Your task to perform on an android device: change text size in settings app Image 0: 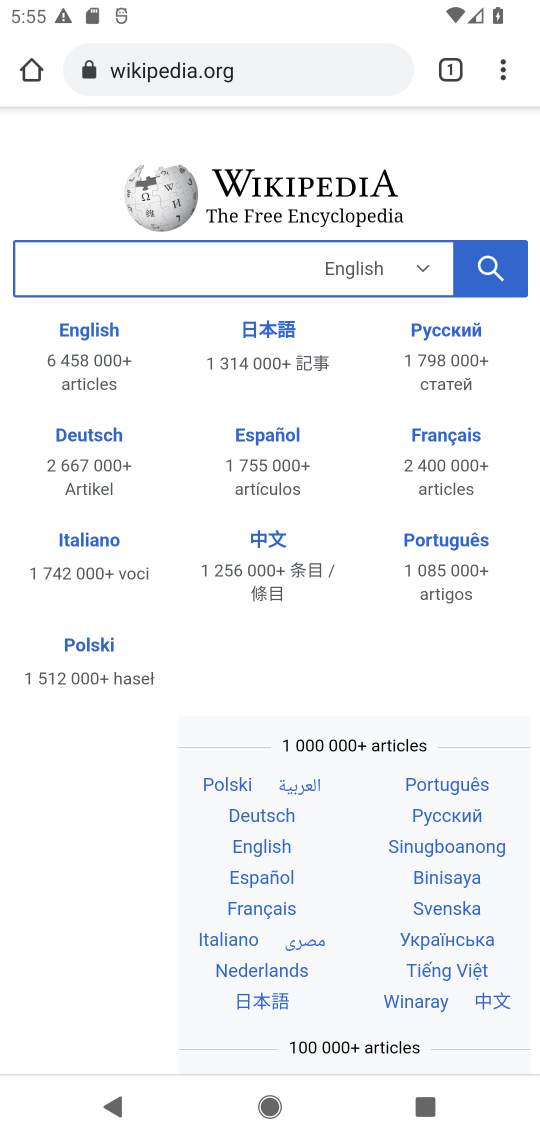
Step 0: press home button
Your task to perform on an android device: change text size in settings app Image 1: 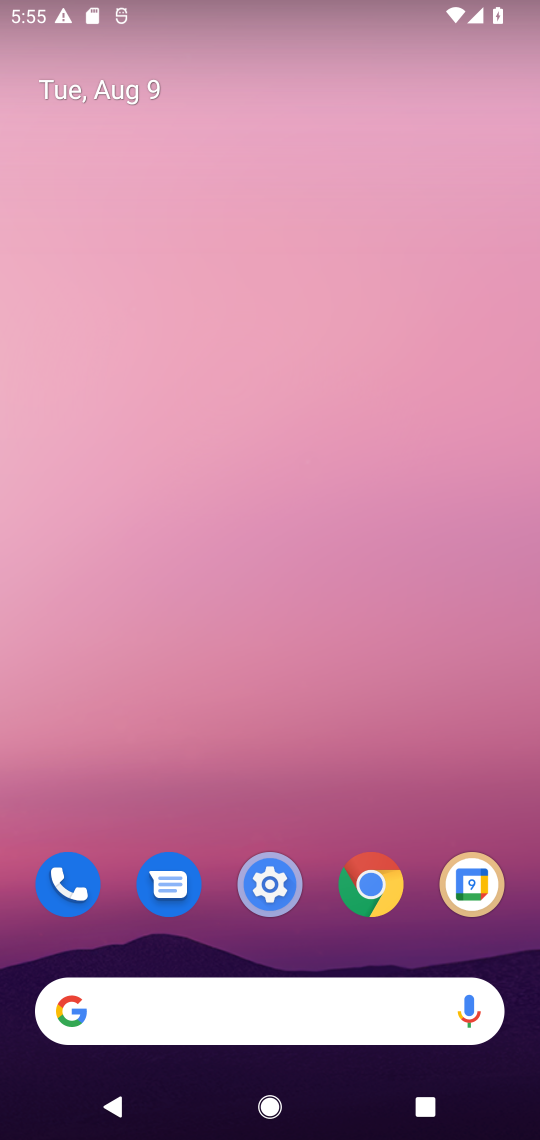
Step 1: click (273, 885)
Your task to perform on an android device: change text size in settings app Image 2: 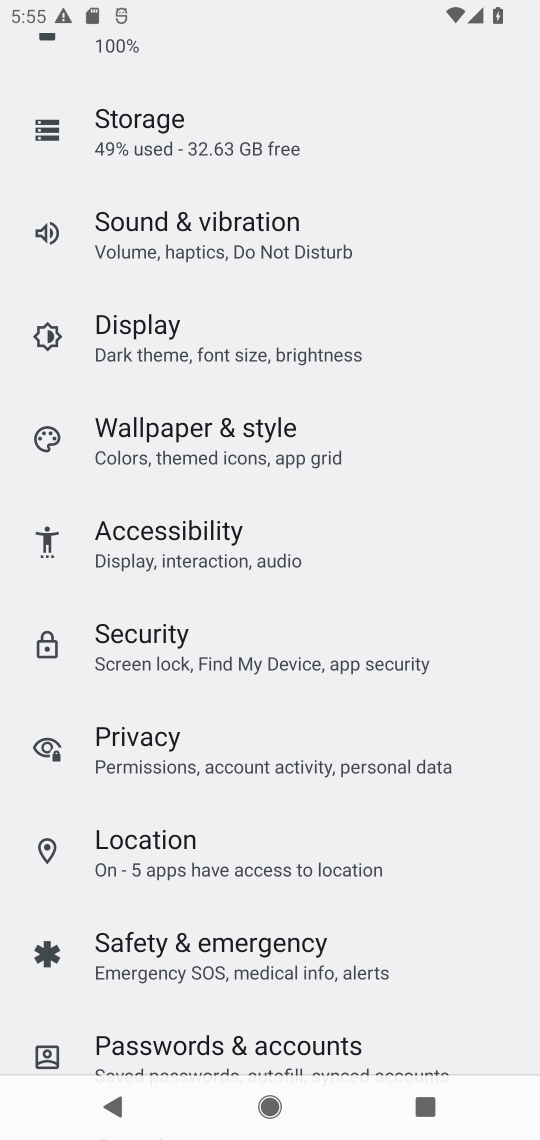
Step 2: drag from (228, 911) to (378, 726)
Your task to perform on an android device: change text size in settings app Image 3: 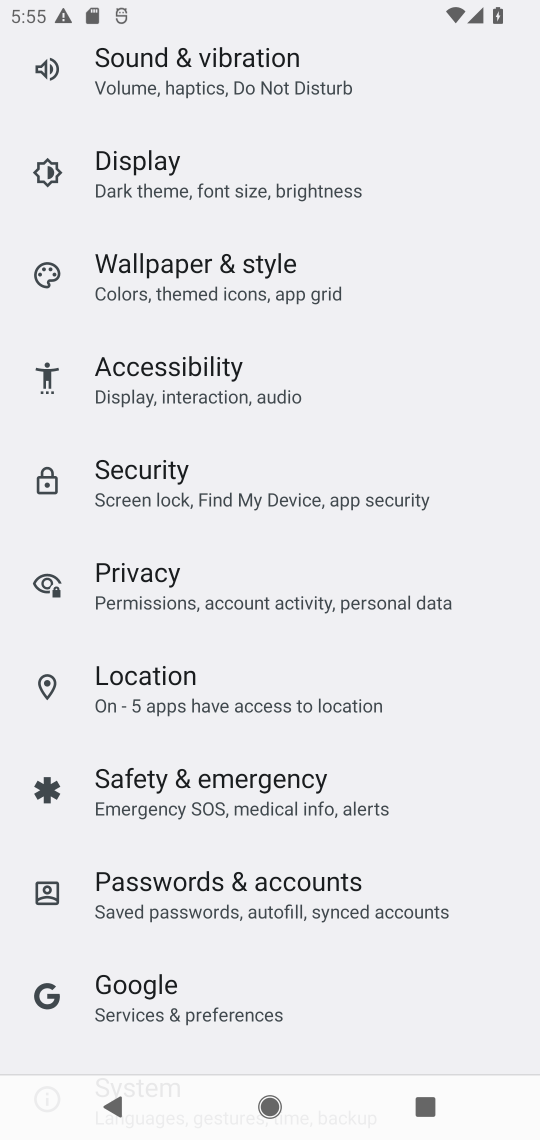
Step 3: drag from (225, 962) to (402, 722)
Your task to perform on an android device: change text size in settings app Image 4: 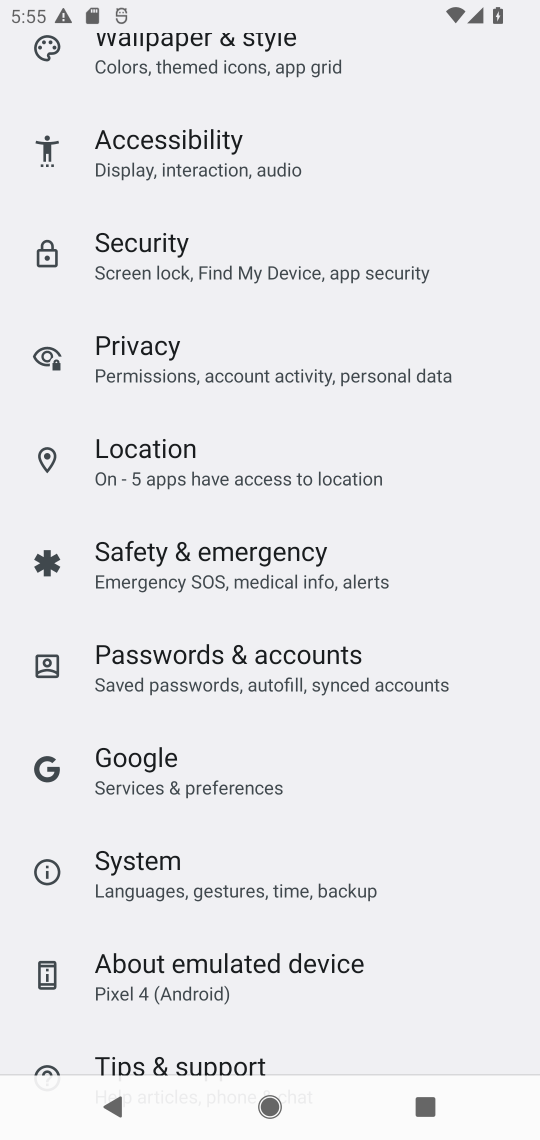
Step 4: click (234, 153)
Your task to perform on an android device: change text size in settings app Image 5: 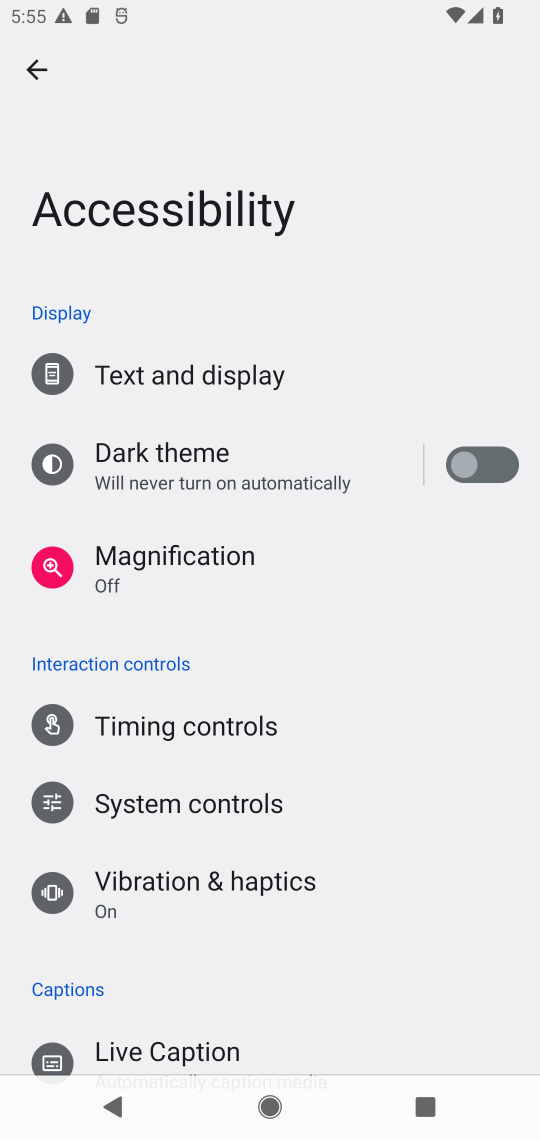
Step 5: click (222, 373)
Your task to perform on an android device: change text size in settings app Image 6: 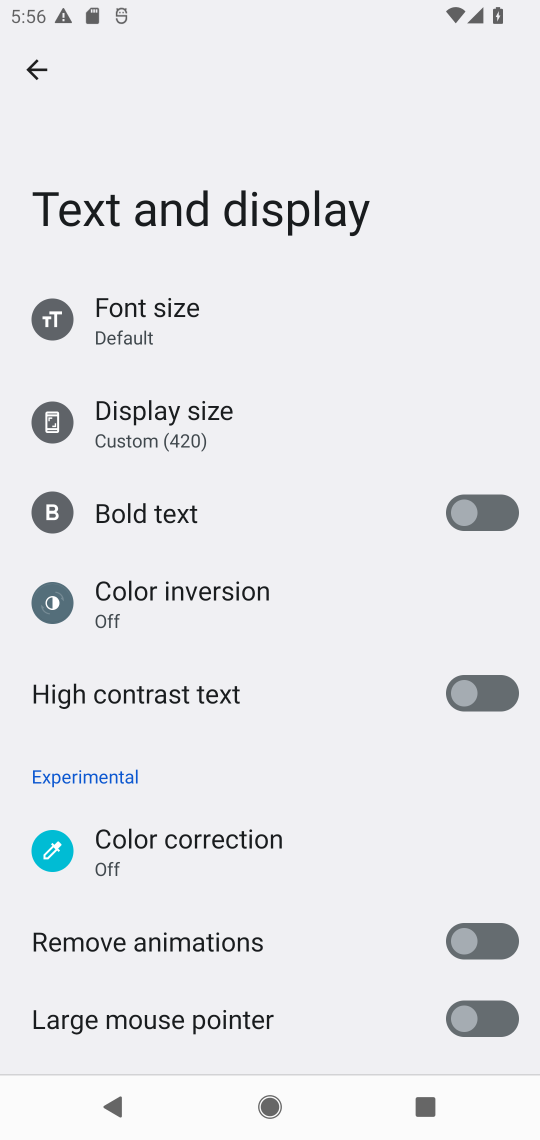
Step 6: click (159, 316)
Your task to perform on an android device: change text size in settings app Image 7: 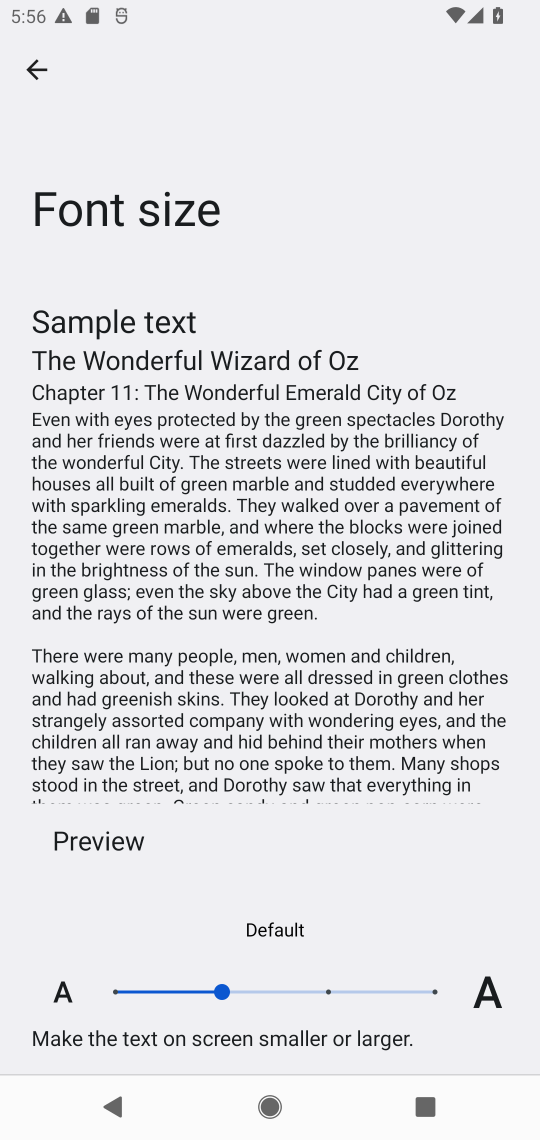
Step 7: click (329, 991)
Your task to perform on an android device: change text size in settings app Image 8: 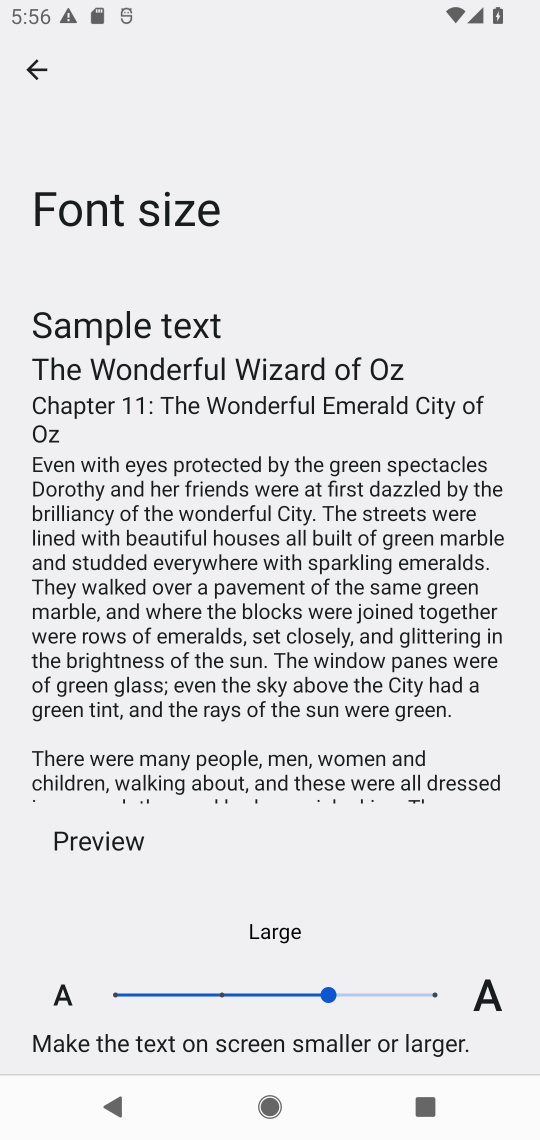
Step 8: click (429, 988)
Your task to perform on an android device: change text size in settings app Image 9: 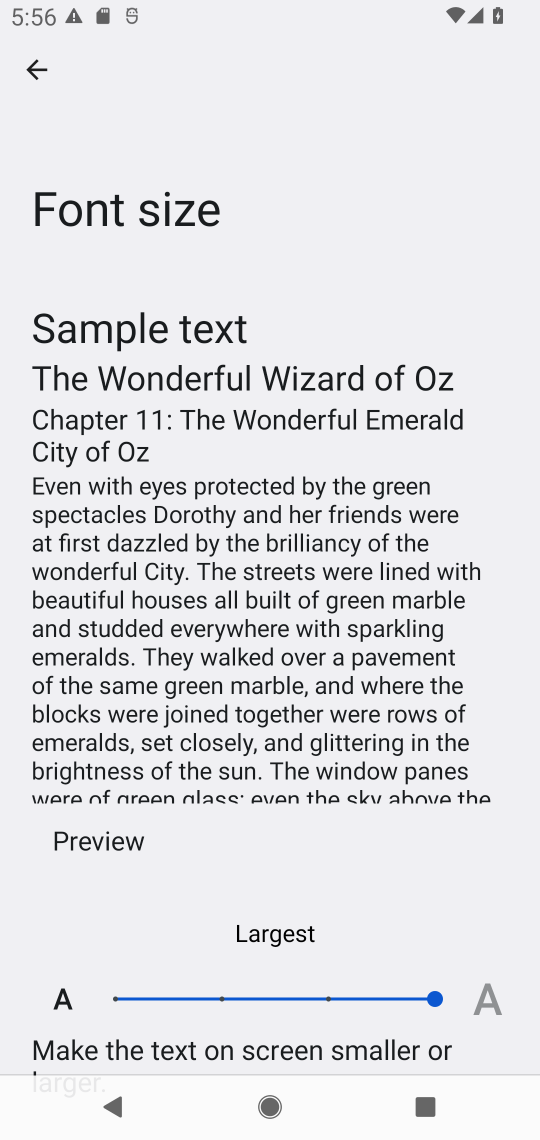
Step 9: task complete